Your task to perform on an android device: turn off location Image 0: 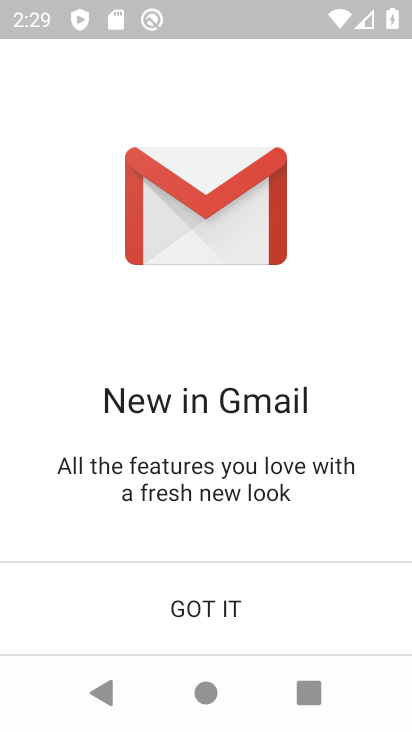
Step 0: click (236, 627)
Your task to perform on an android device: turn off location Image 1: 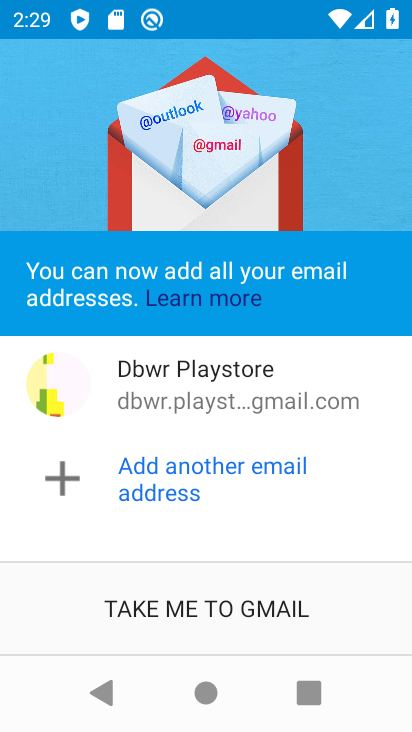
Step 1: click (248, 614)
Your task to perform on an android device: turn off location Image 2: 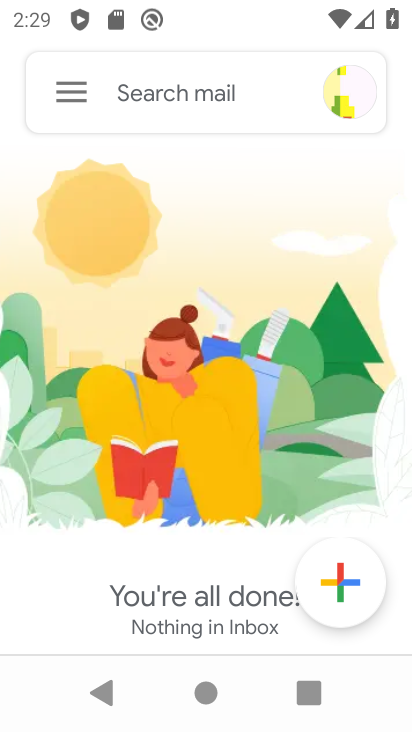
Step 2: press home button
Your task to perform on an android device: turn off location Image 3: 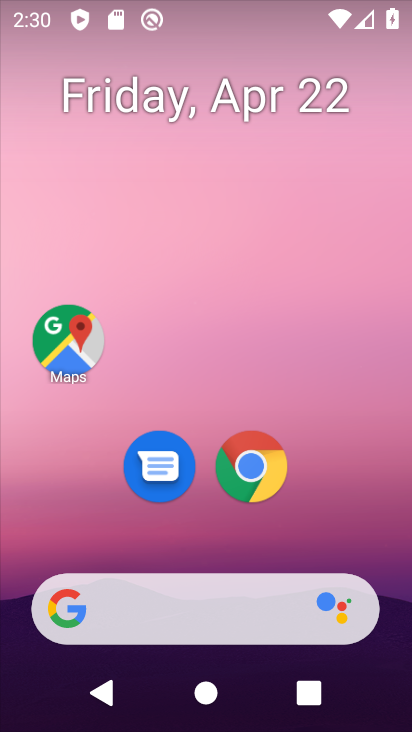
Step 3: drag from (259, 613) to (211, 71)
Your task to perform on an android device: turn off location Image 4: 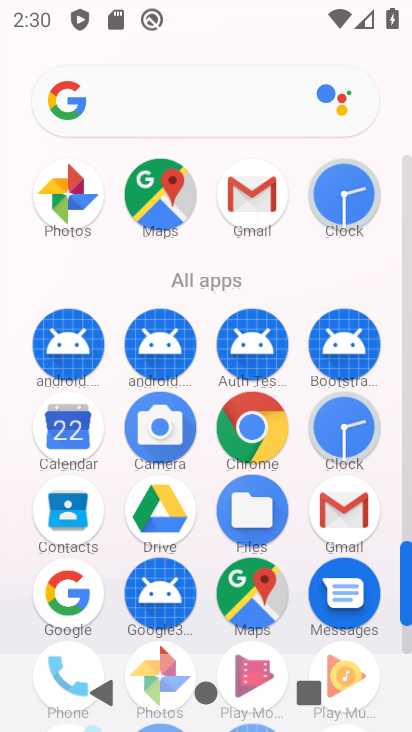
Step 4: drag from (187, 619) to (174, 98)
Your task to perform on an android device: turn off location Image 5: 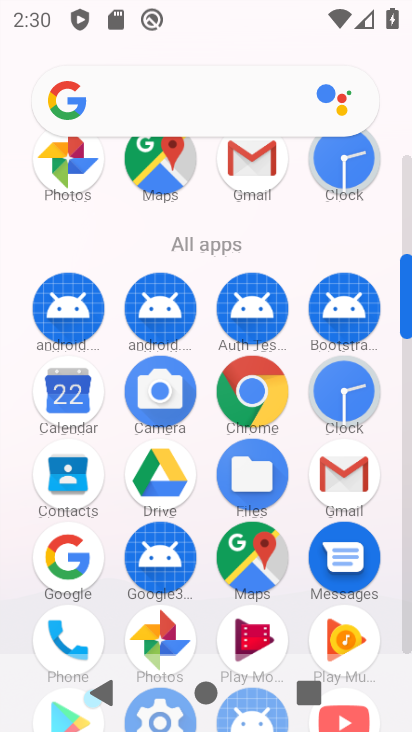
Step 5: drag from (185, 426) to (184, 20)
Your task to perform on an android device: turn off location Image 6: 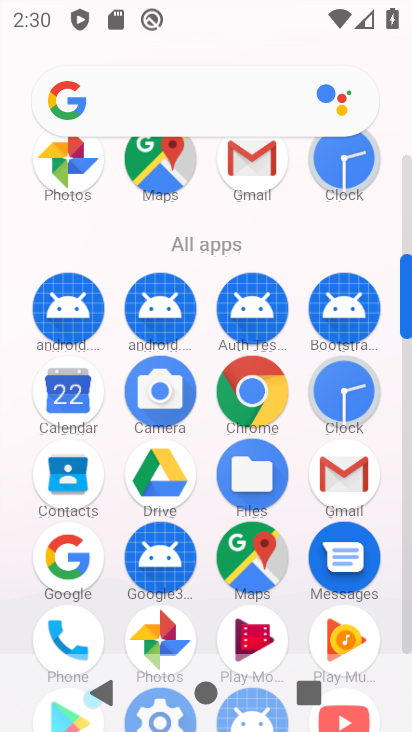
Step 6: drag from (211, 575) to (186, 30)
Your task to perform on an android device: turn off location Image 7: 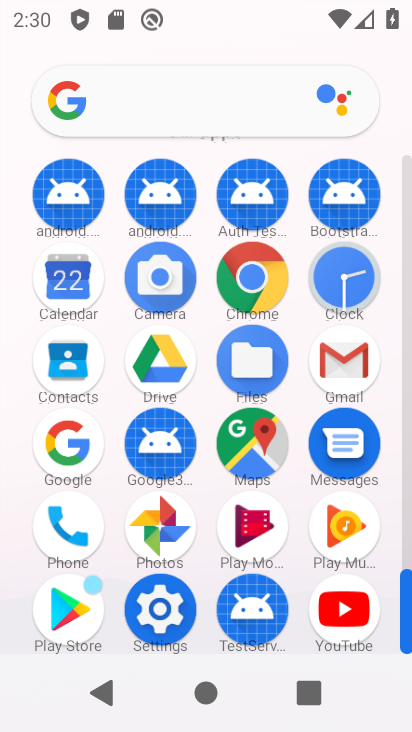
Step 7: click (162, 601)
Your task to perform on an android device: turn off location Image 8: 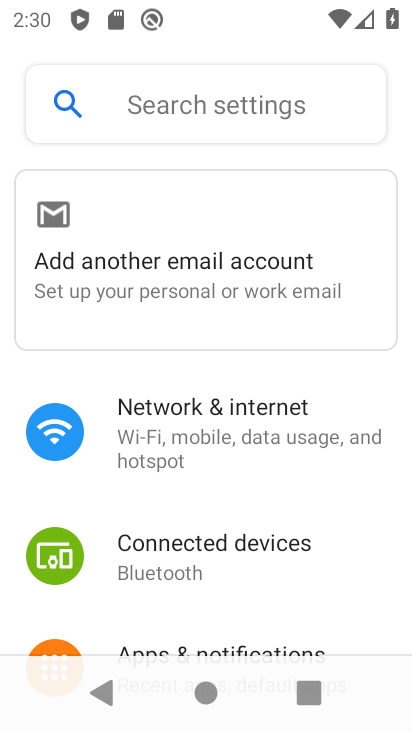
Step 8: drag from (308, 564) to (308, 186)
Your task to perform on an android device: turn off location Image 9: 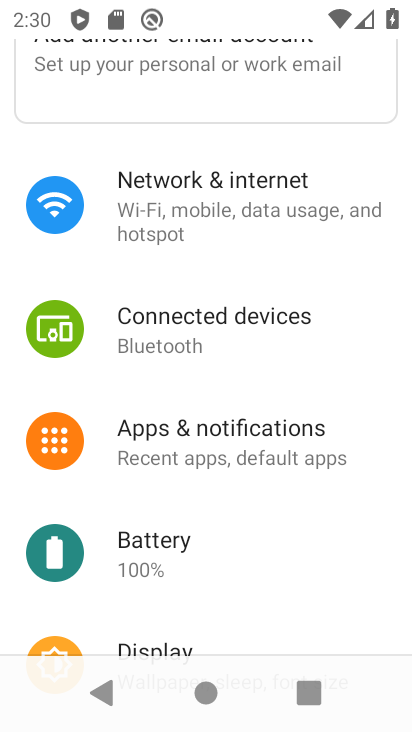
Step 9: drag from (289, 565) to (297, 137)
Your task to perform on an android device: turn off location Image 10: 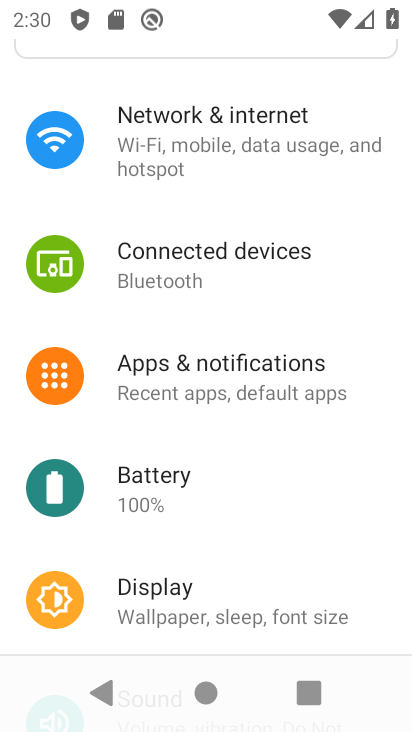
Step 10: drag from (303, 572) to (355, 65)
Your task to perform on an android device: turn off location Image 11: 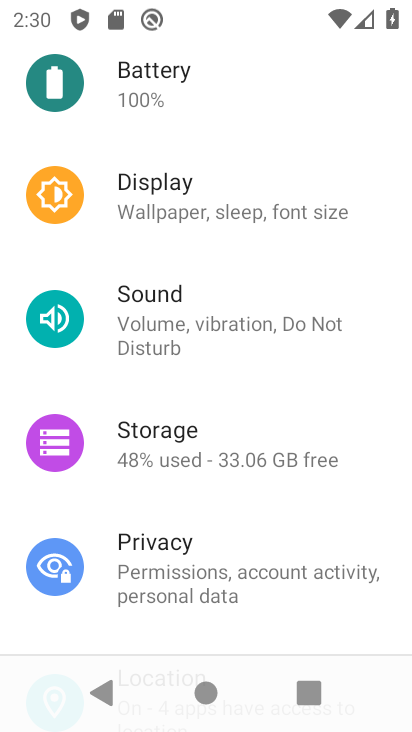
Step 11: drag from (326, 555) to (316, 156)
Your task to perform on an android device: turn off location Image 12: 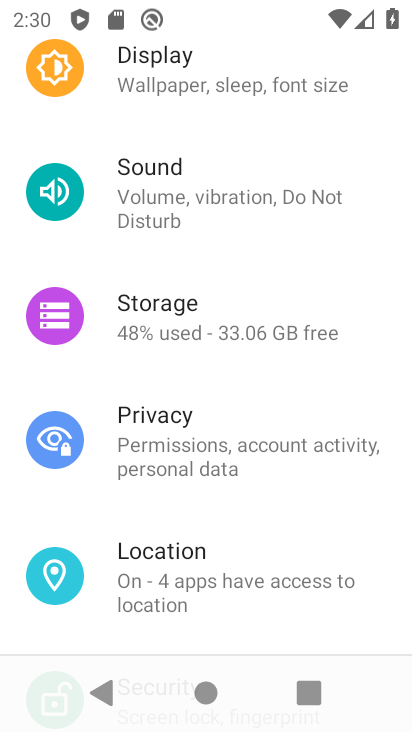
Step 12: click (298, 581)
Your task to perform on an android device: turn off location Image 13: 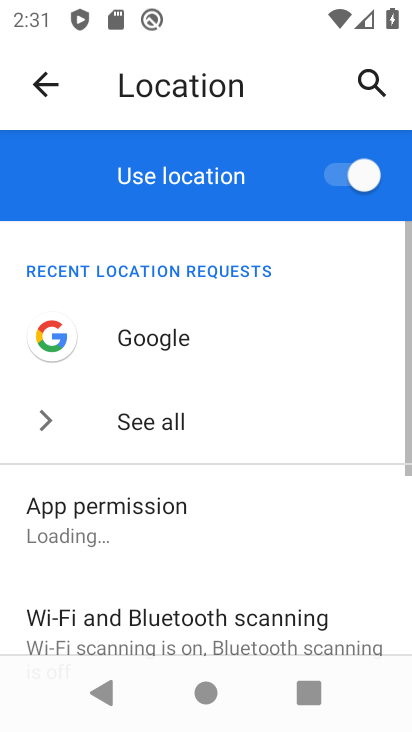
Step 13: click (355, 174)
Your task to perform on an android device: turn off location Image 14: 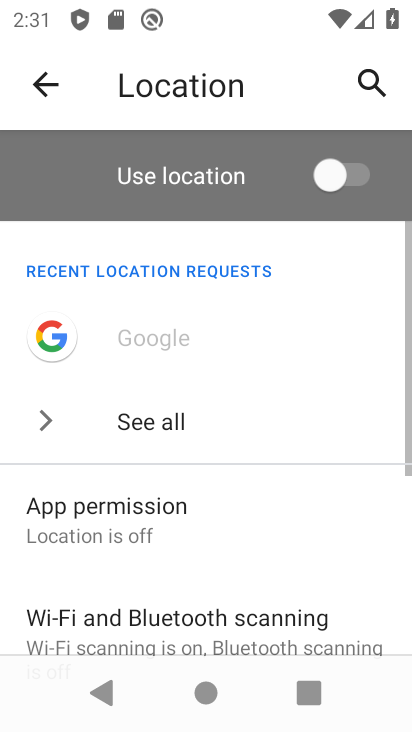
Step 14: task complete